Your task to perform on an android device: open device folders in google photos Image 0: 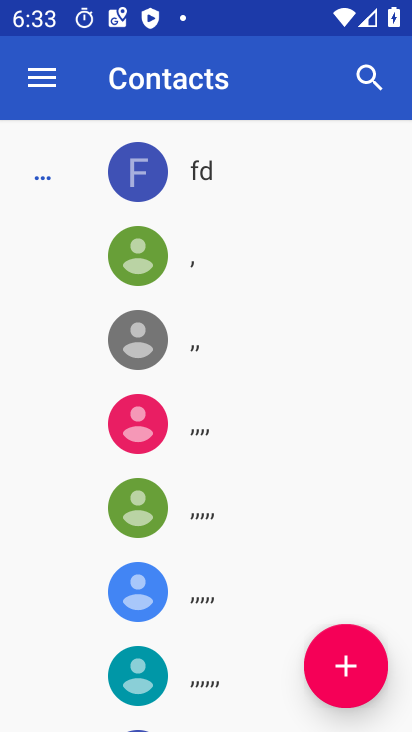
Step 0: press home button
Your task to perform on an android device: open device folders in google photos Image 1: 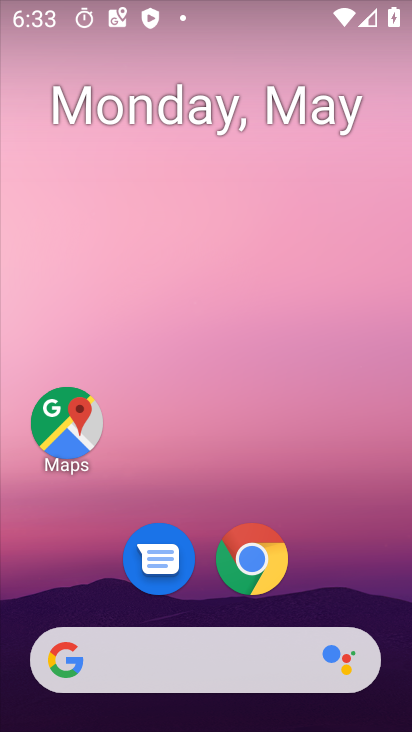
Step 1: drag from (394, 629) to (406, 16)
Your task to perform on an android device: open device folders in google photos Image 2: 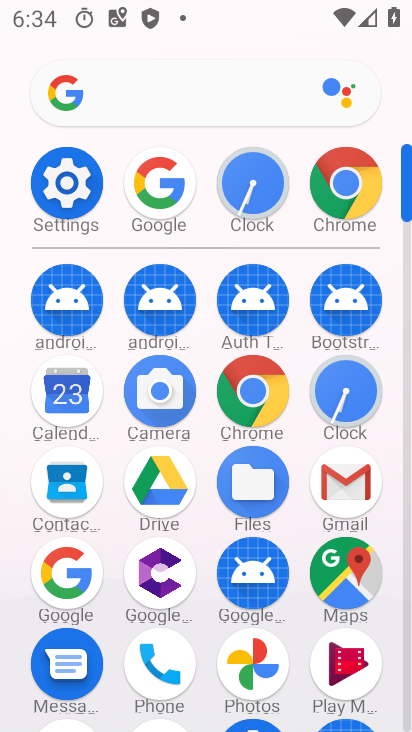
Step 2: click (257, 652)
Your task to perform on an android device: open device folders in google photos Image 3: 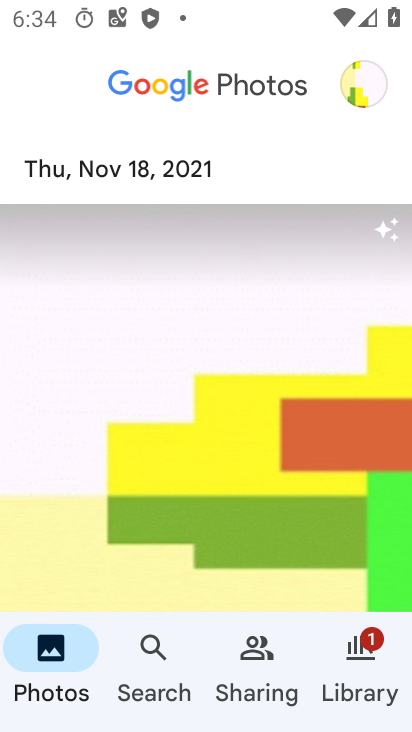
Step 3: press back button
Your task to perform on an android device: open device folders in google photos Image 4: 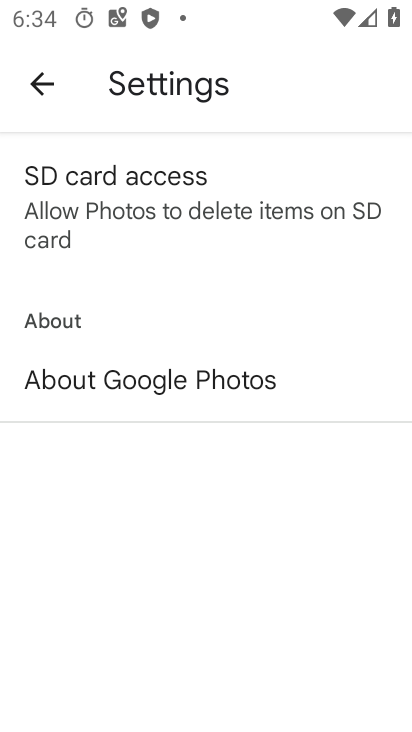
Step 4: press back button
Your task to perform on an android device: open device folders in google photos Image 5: 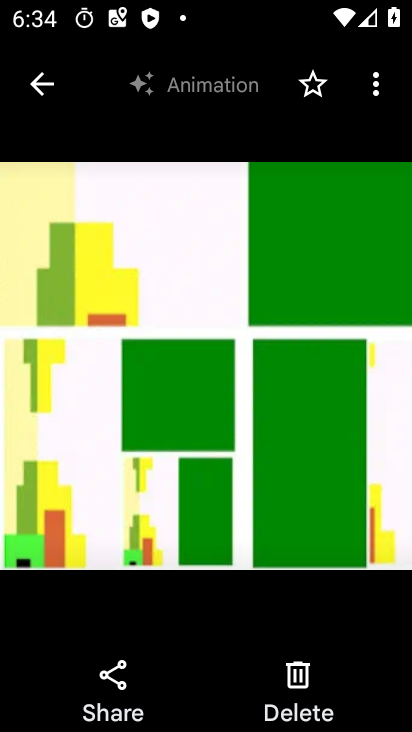
Step 5: press back button
Your task to perform on an android device: open device folders in google photos Image 6: 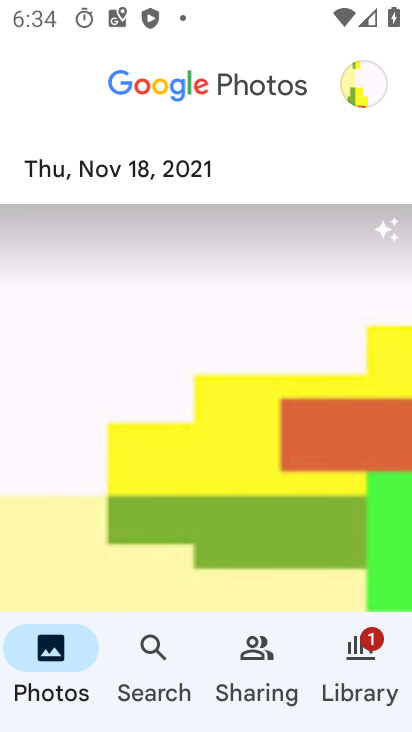
Step 6: click (352, 88)
Your task to perform on an android device: open device folders in google photos Image 7: 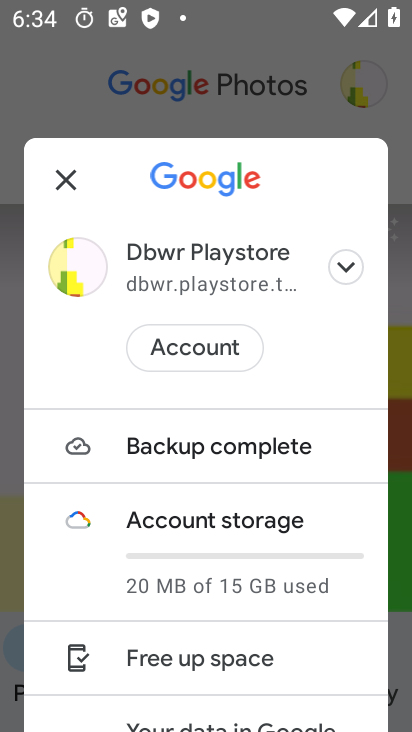
Step 7: task complete